Your task to perform on an android device: Search for flights from Buenos aires to Helsinki Image 0: 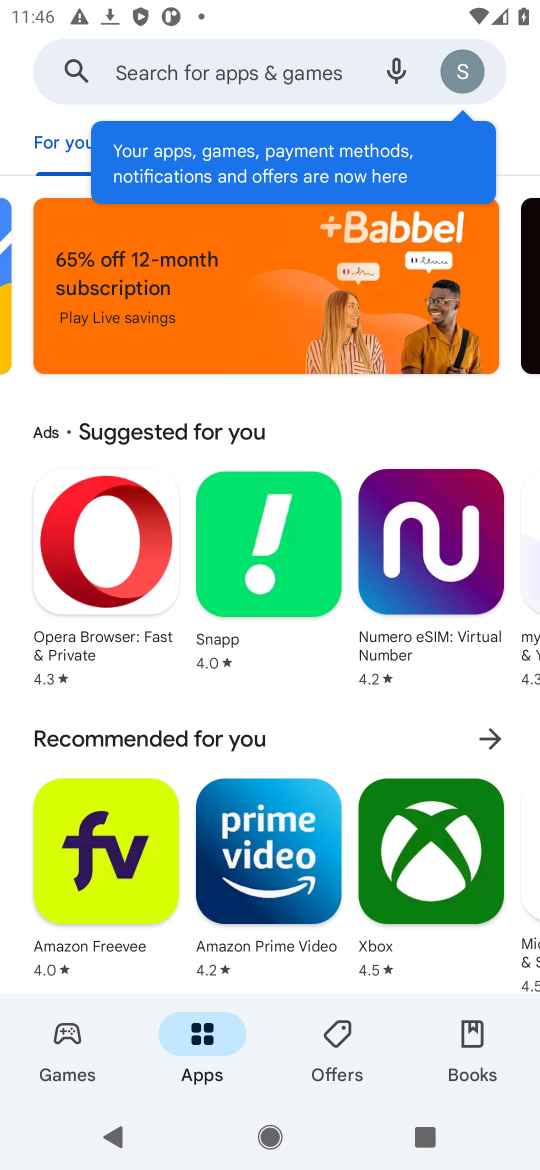
Step 0: press home button
Your task to perform on an android device: Search for flights from Buenos aires to Helsinki Image 1: 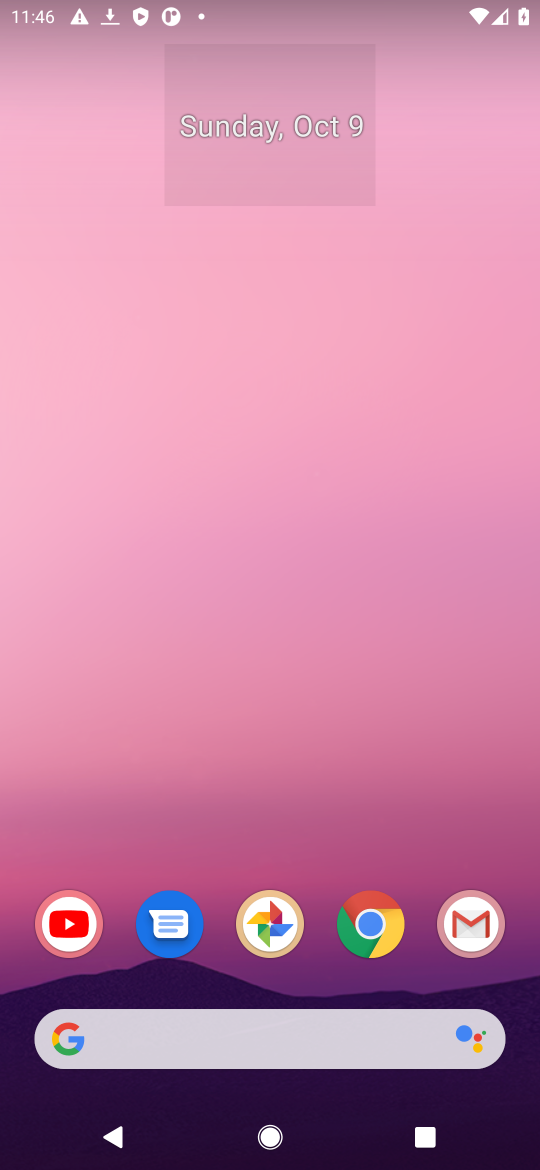
Step 1: drag from (188, 1014) to (381, 9)
Your task to perform on an android device: Search for flights from Buenos aires to Helsinki Image 2: 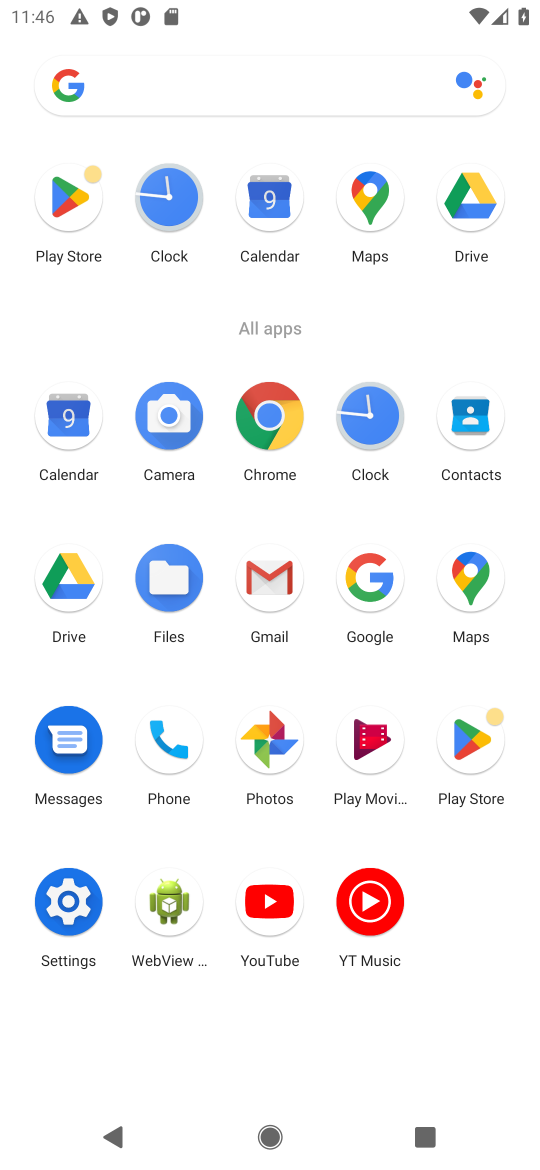
Step 2: click (287, 430)
Your task to perform on an android device: Search for flights from Buenos aires to Helsinki Image 3: 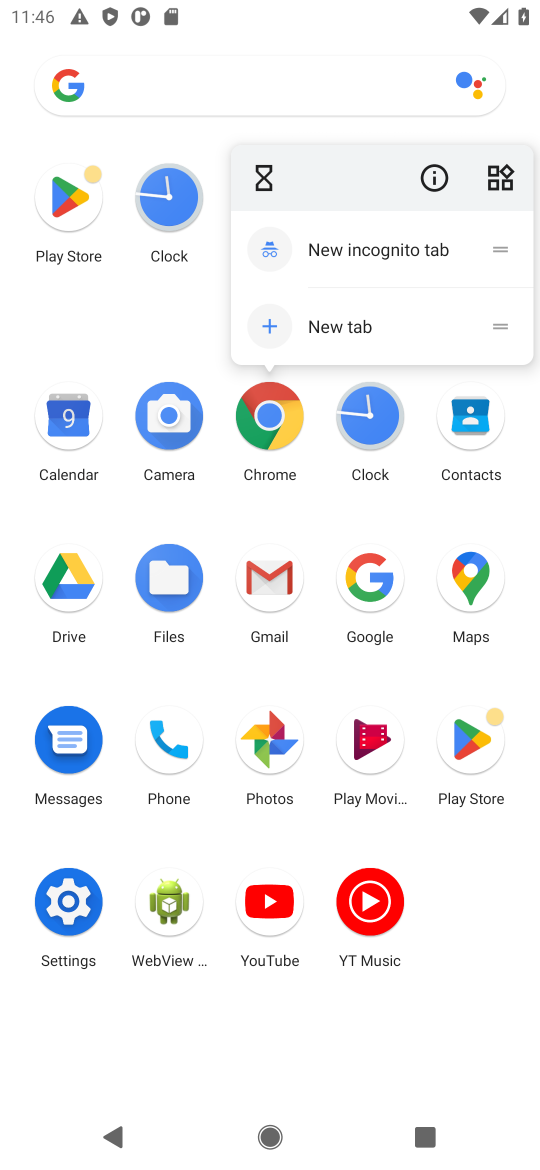
Step 3: click (276, 422)
Your task to perform on an android device: Search for flights from Buenos aires to Helsinki Image 4: 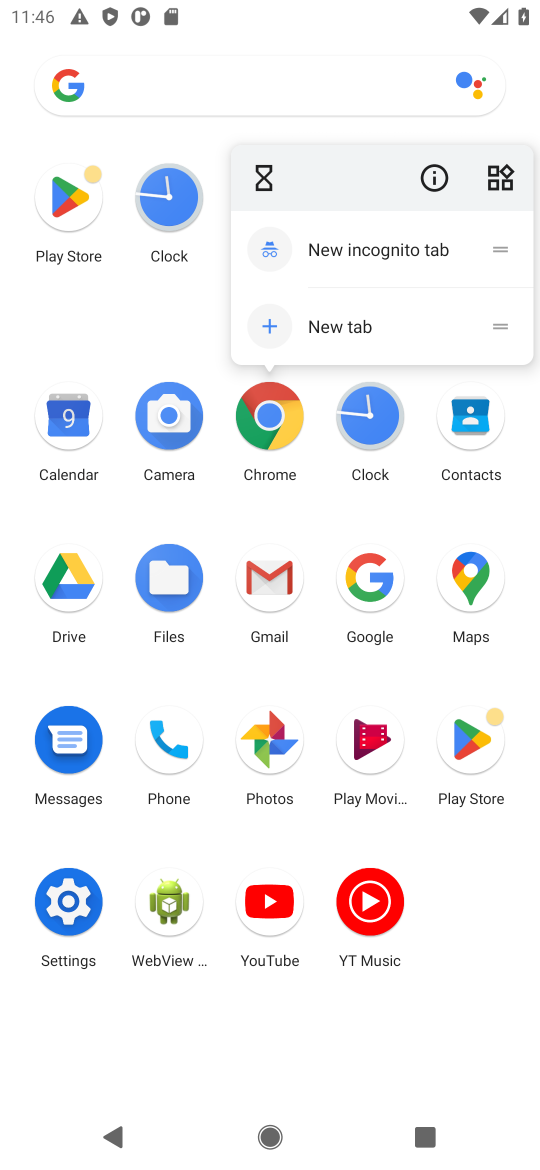
Step 4: click (280, 423)
Your task to perform on an android device: Search for flights from Buenos aires to Helsinki Image 5: 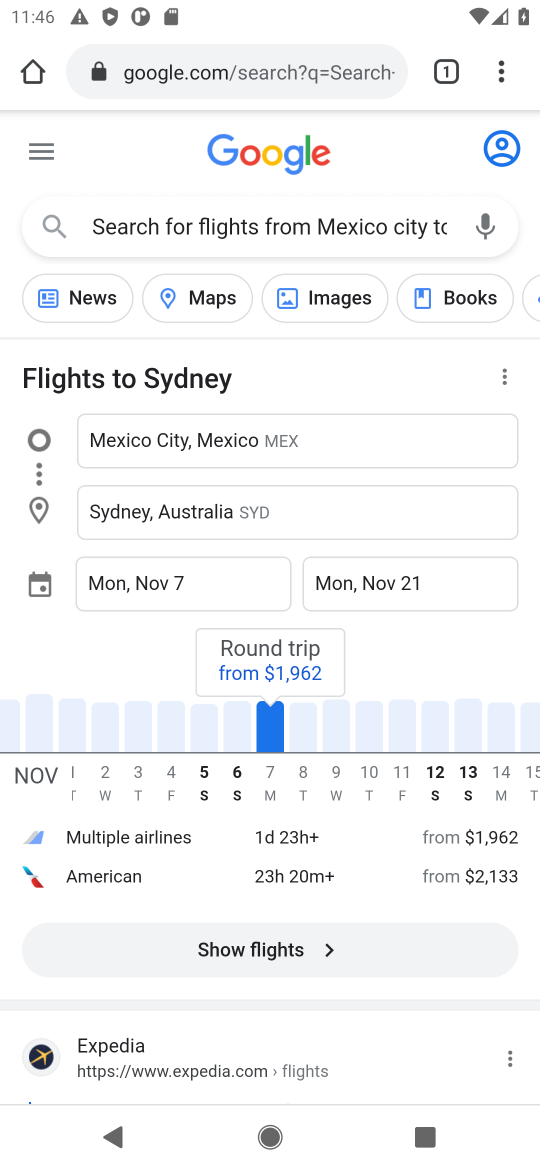
Step 5: click (292, 234)
Your task to perform on an android device: Search for flights from Buenos aires to Helsinki Image 6: 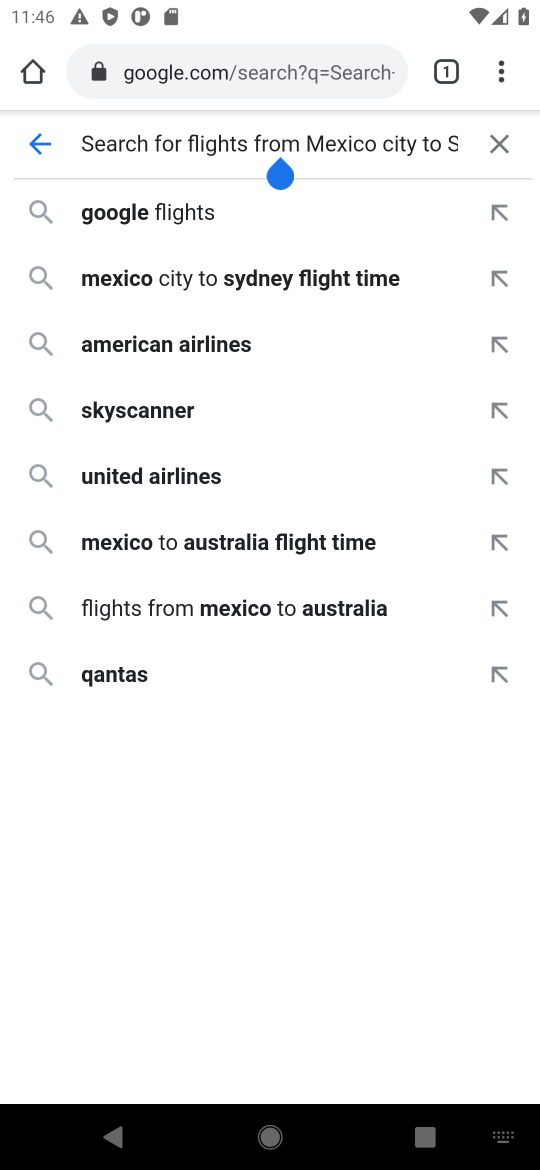
Step 6: click (311, 72)
Your task to perform on an android device: Search for flights from Buenos aires to Helsinki Image 7: 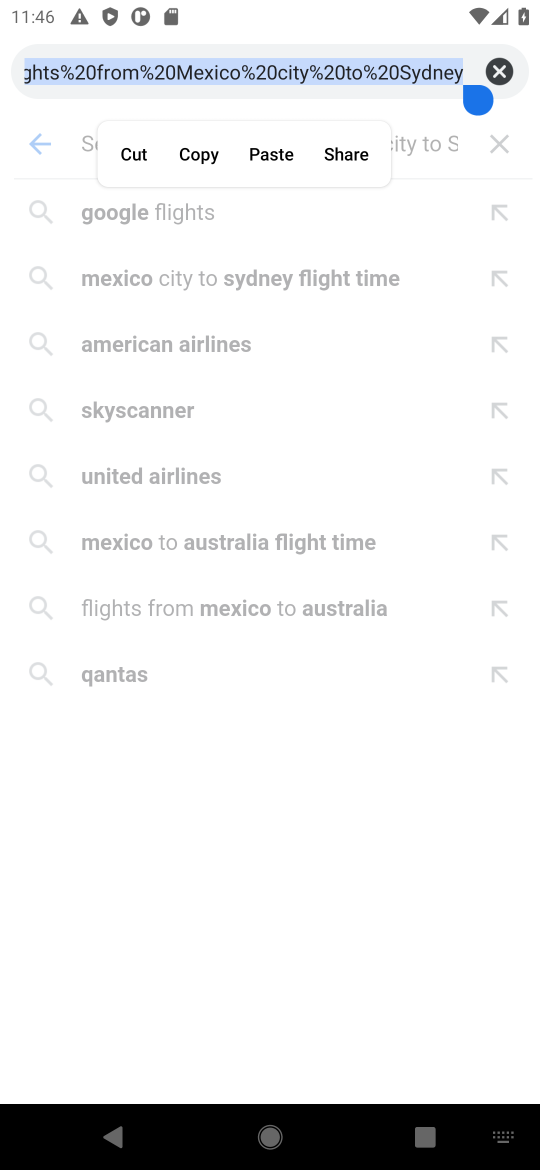
Step 7: click (497, 83)
Your task to perform on an android device: Search for flights from Buenos aires to Helsinki Image 8: 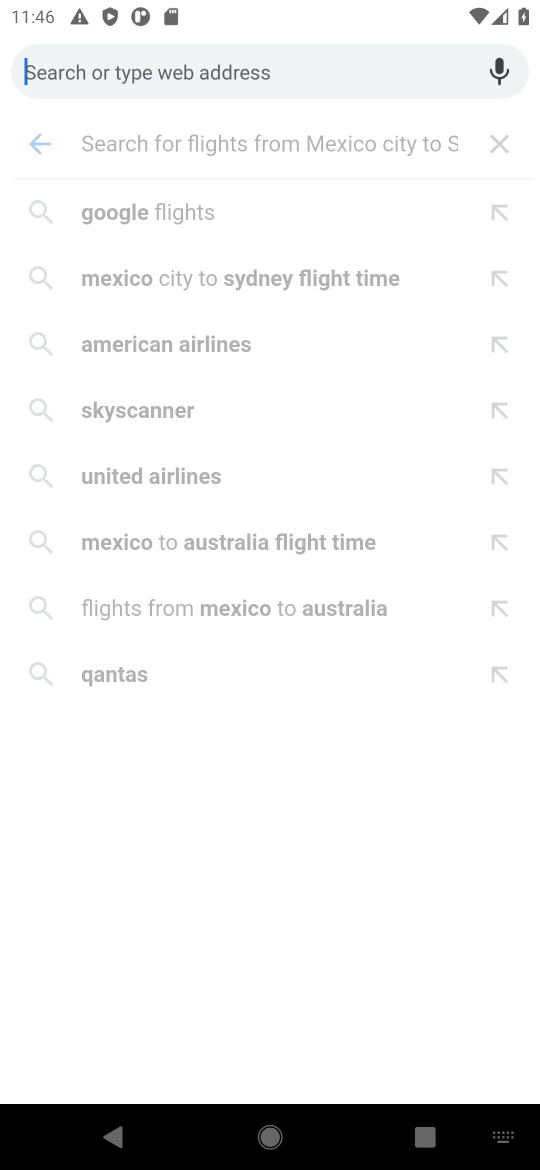
Step 8: type "Search for flights from Buenos aires to Helsinki"
Your task to perform on an android device: Search for flights from Buenos aires to Helsinki Image 9: 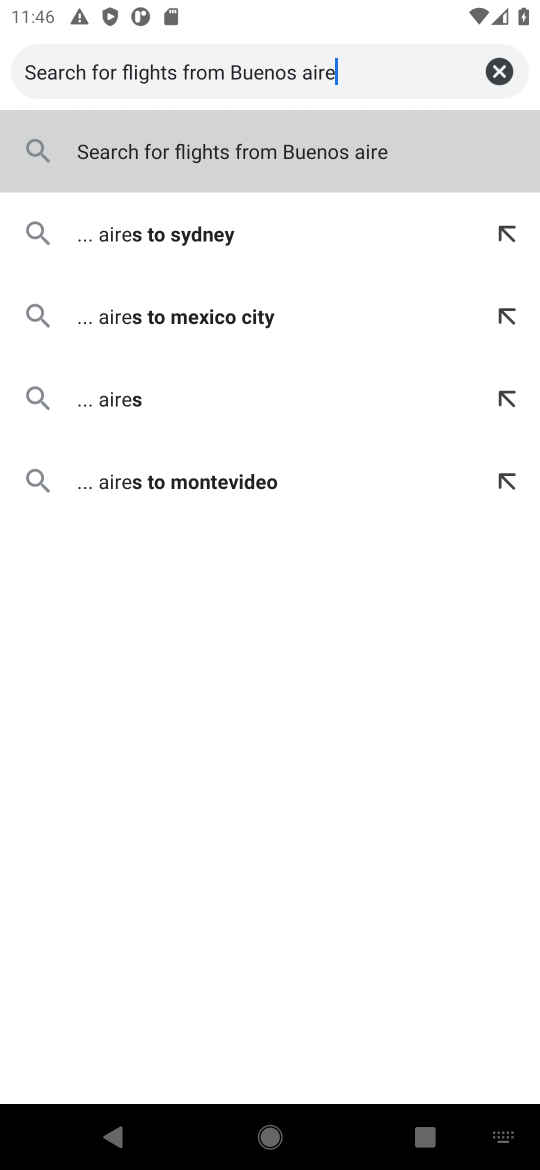
Step 9: press enter
Your task to perform on an android device: Search for flights from Buenos aires to Helsinki Image 10: 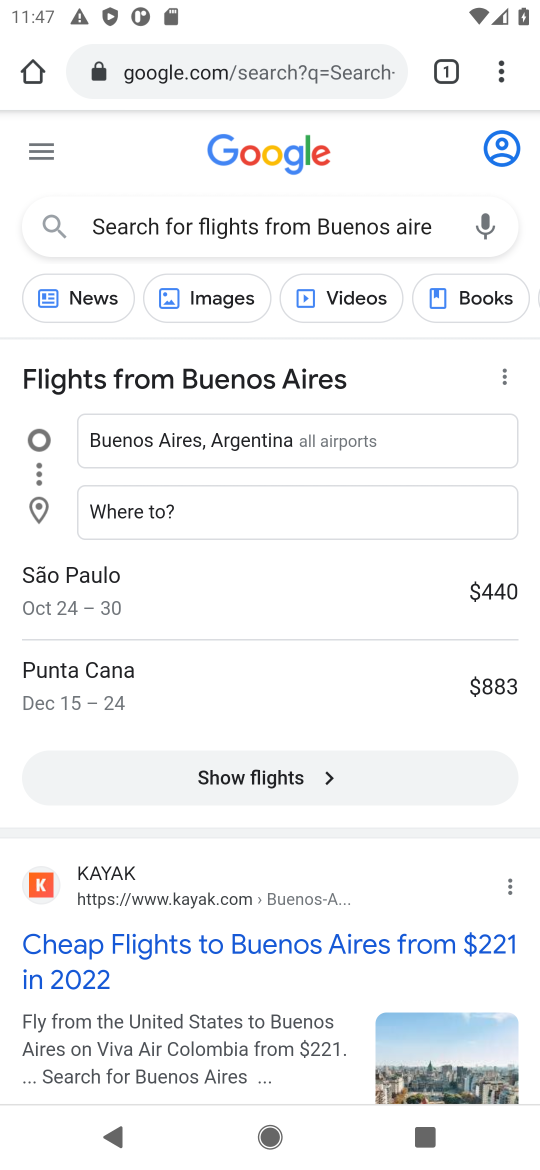
Step 10: task complete